Your task to perform on an android device: turn off data saver in the chrome app Image 0: 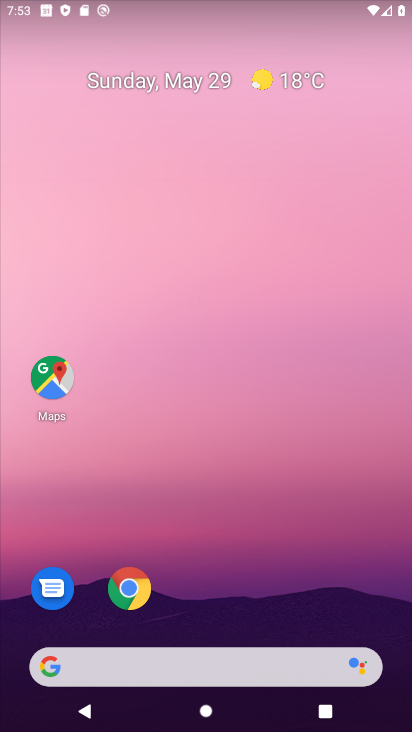
Step 0: click (132, 585)
Your task to perform on an android device: turn off data saver in the chrome app Image 1: 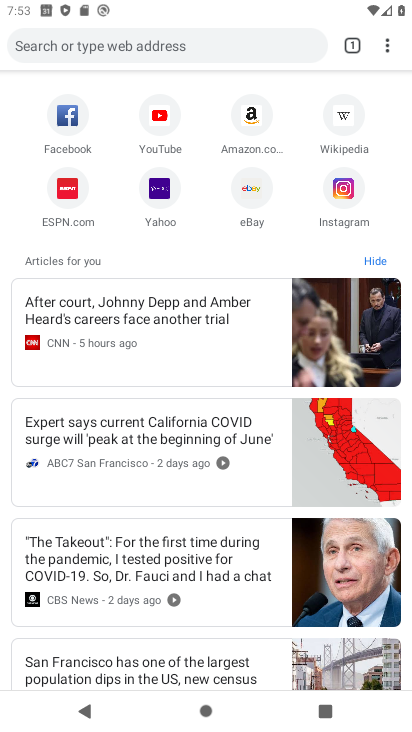
Step 1: click (379, 51)
Your task to perform on an android device: turn off data saver in the chrome app Image 2: 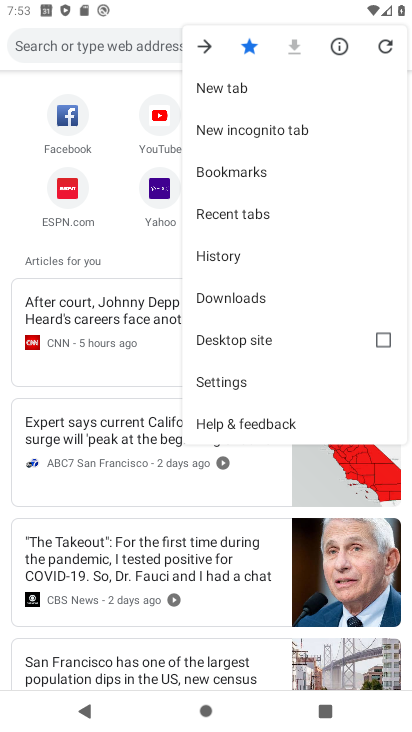
Step 2: click (258, 383)
Your task to perform on an android device: turn off data saver in the chrome app Image 3: 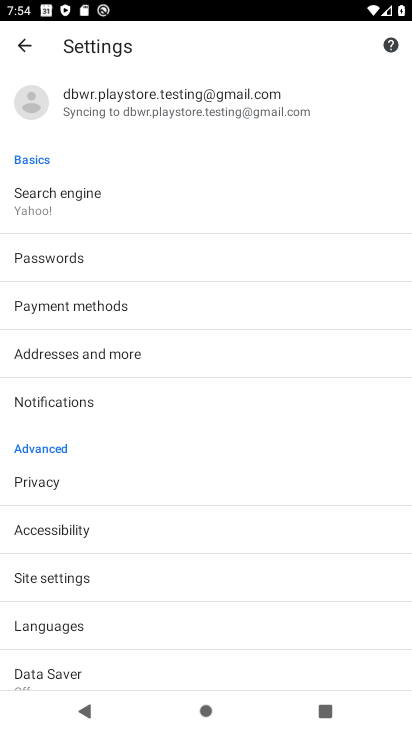
Step 3: click (76, 579)
Your task to perform on an android device: turn off data saver in the chrome app Image 4: 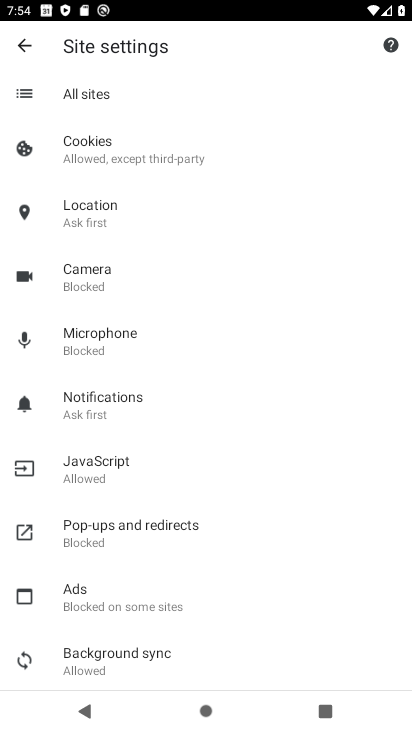
Step 4: press back button
Your task to perform on an android device: turn off data saver in the chrome app Image 5: 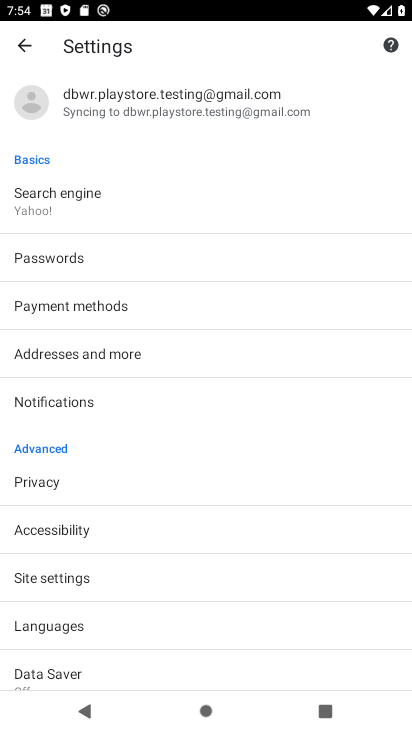
Step 5: click (80, 660)
Your task to perform on an android device: turn off data saver in the chrome app Image 6: 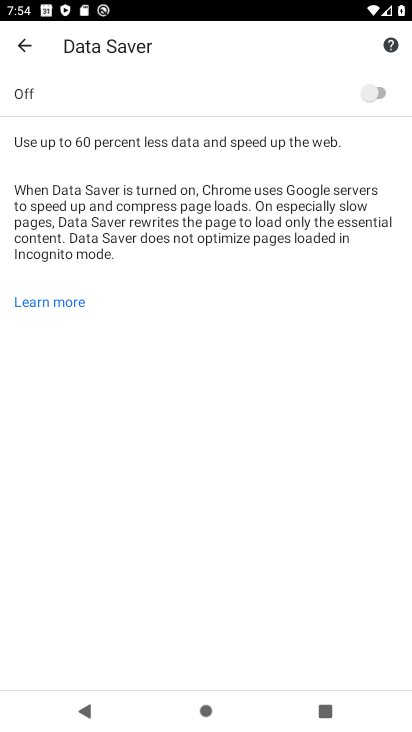
Step 6: task complete